Your task to perform on an android device: Open the Play Movies app and select the watchlist tab. Image 0: 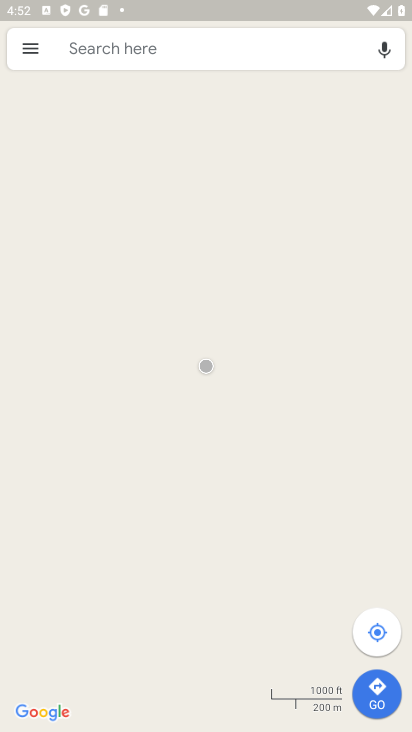
Step 0: press home button
Your task to perform on an android device: Open the Play Movies app and select the watchlist tab. Image 1: 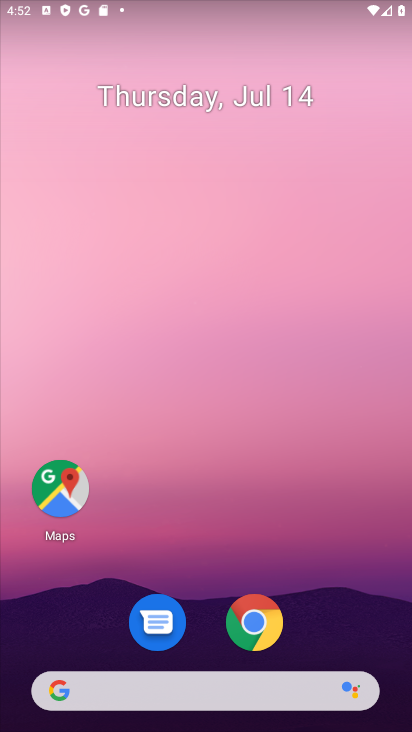
Step 1: drag from (320, 623) to (247, 284)
Your task to perform on an android device: Open the Play Movies app and select the watchlist tab. Image 2: 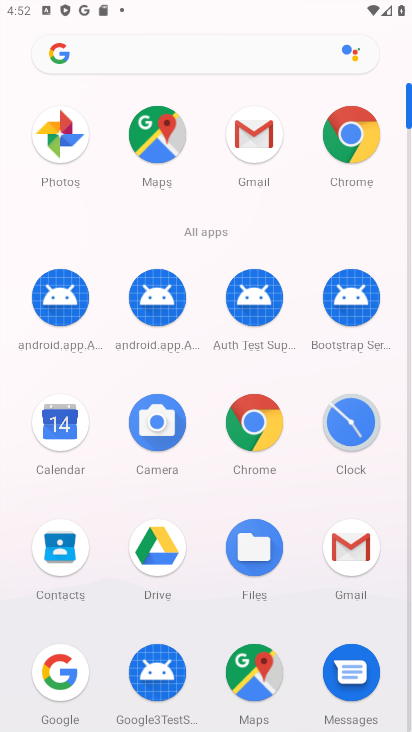
Step 2: drag from (298, 588) to (313, 193)
Your task to perform on an android device: Open the Play Movies app and select the watchlist tab. Image 3: 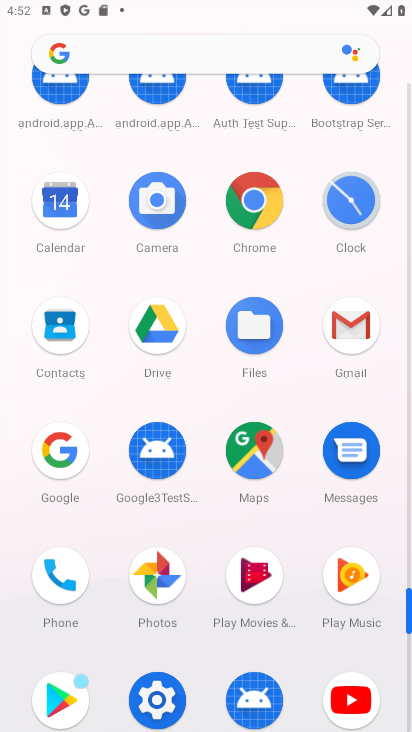
Step 3: click (273, 597)
Your task to perform on an android device: Open the Play Movies app and select the watchlist tab. Image 4: 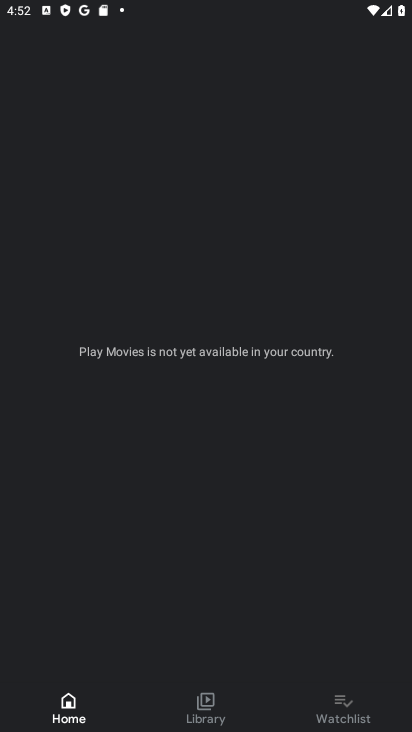
Step 4: click (350, 687)
Your task to perform on an android device: Open the Play Movies app and select the watchlist tab. Image 5: 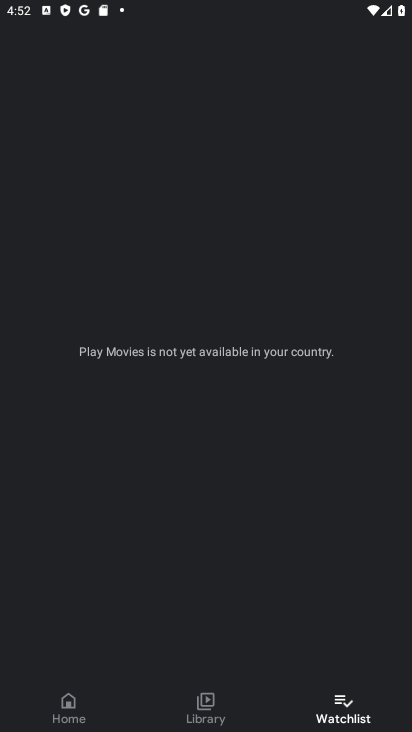
Step 5: task complete